Your task to perform on an android device: change keyboard looks Image 0: 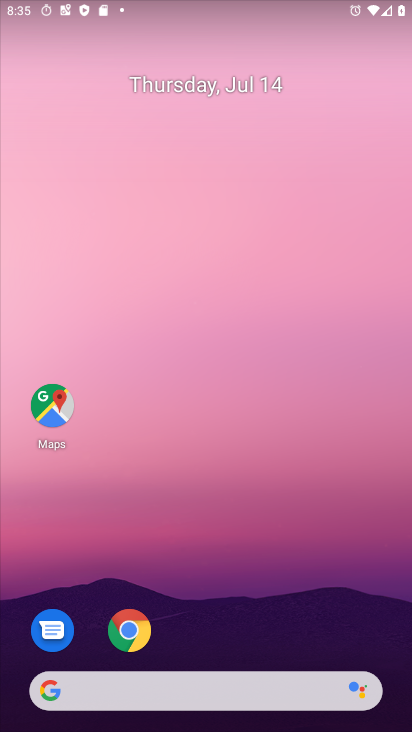
Step 0: drag from (240, 730) to (238, 136)
Your task to perform on an android device: change keyboard looks Image 1: 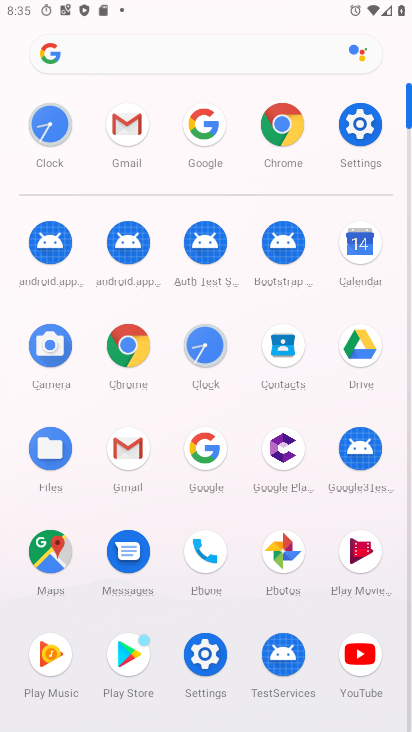
Step 1: click (370, 129)
Your task to perform on an android device: change keyboard looks Image 2: 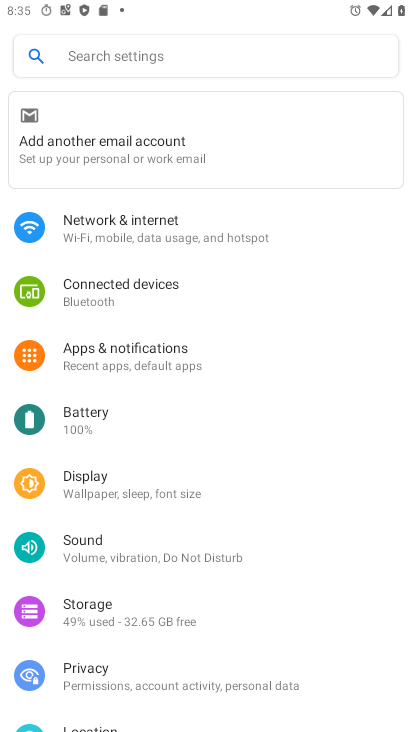
Step 2: drag from (173, 675) to (177, 349)
Your task to perform on an android device: change keyboard looks Image 3: 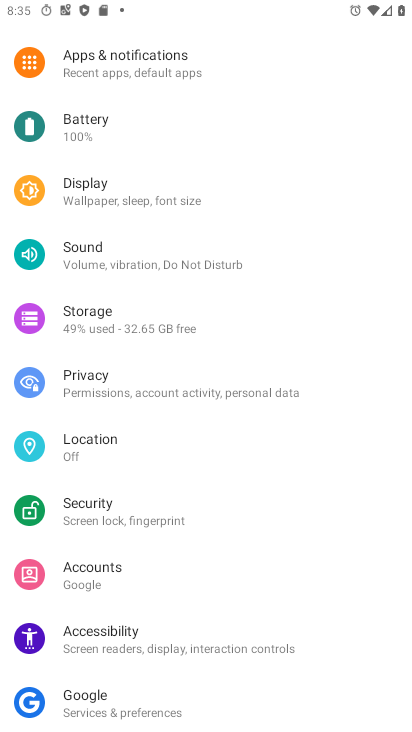
Step 3: drag from (132, 688) to (124, 367)
Your task to perform on an android device: change keyboard looks Image 4: 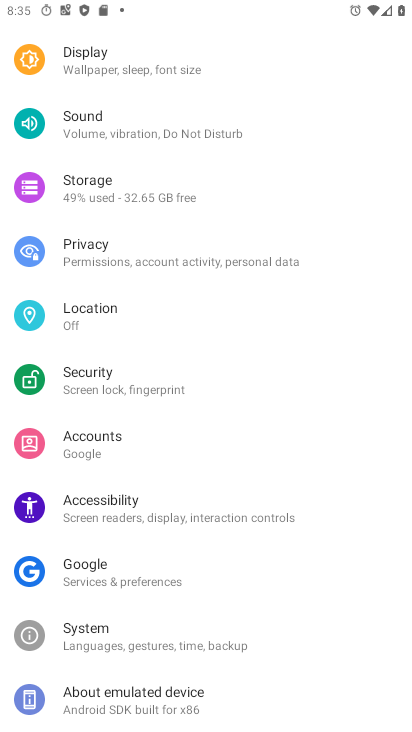
Step 4: click (95, 635)
Your task to perform on an android device: change keyboard looks Image 5: 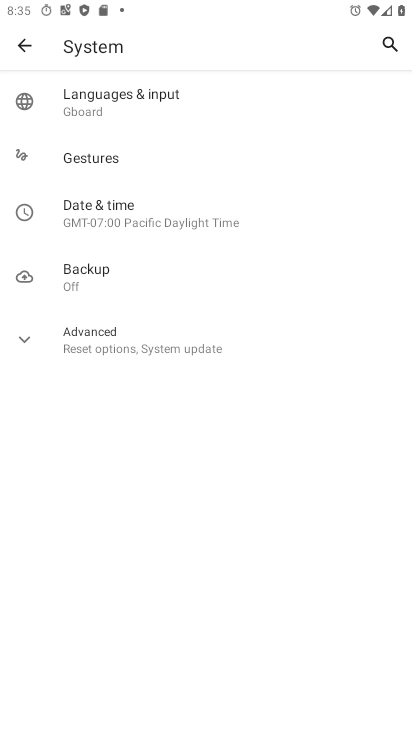
Step 5: click (88, 99)
Your task to perform on an android device: change keyboard looks Image 6: 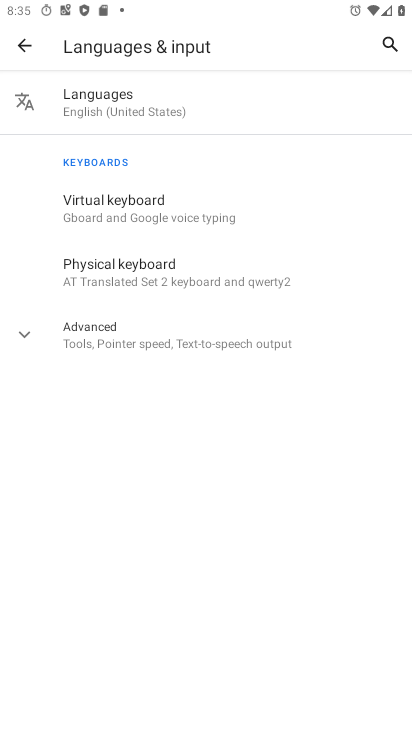
Step 6: click (131, 202)
Your task to perform on an android device: change keyboard looks Image 7: 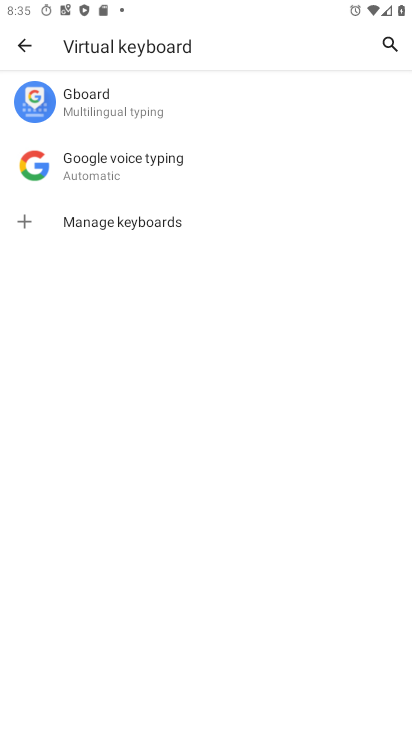
Step 7: click (110, 108)
Your task to perform on an android device: change keyboard looks Image 8: 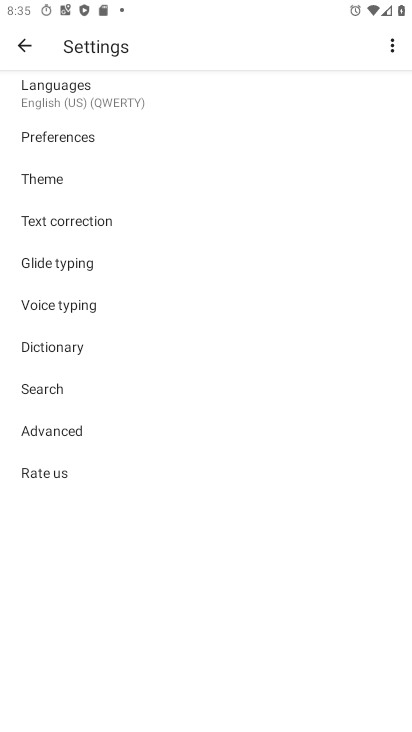
Step 8: click (46, 183)
Your task to perform on an android device: change keyboard looks Image 9: 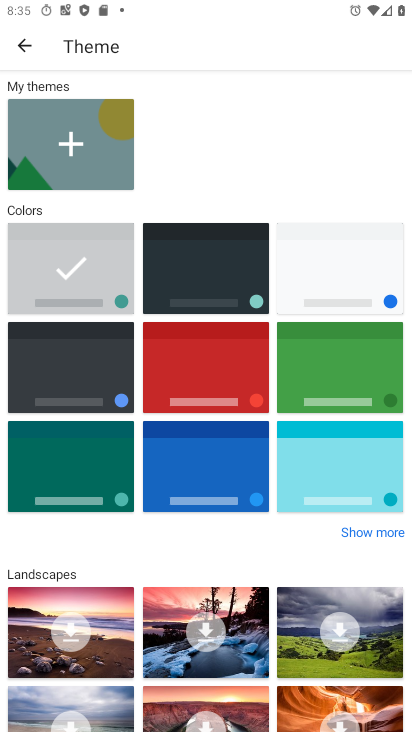
Step 9: click (152, 301)
Your task to perform on an android device: change keyboard looks Image 10: 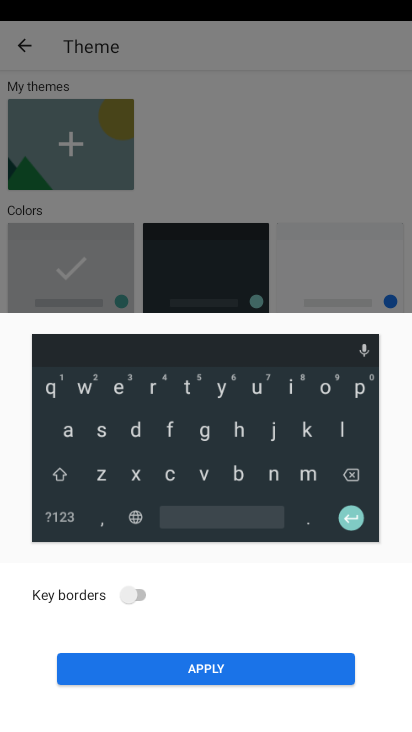
Step 10: click (133, 586)
Your task to perform on an android device: change keyboard looks Image 11: 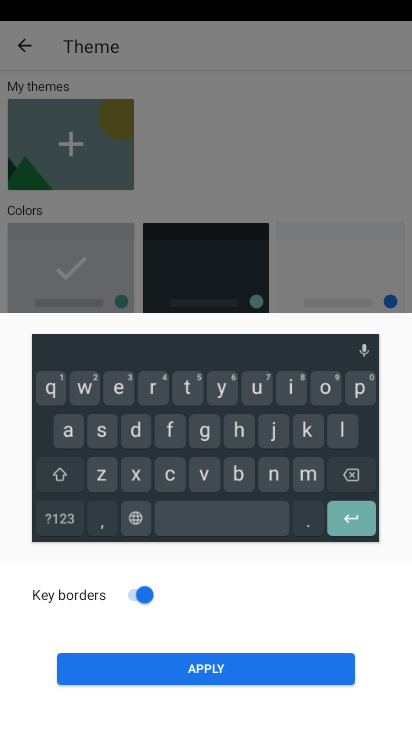
Step 11: click (155, 666)
Your task to perform on an android device: change keyboard looks Image 12: 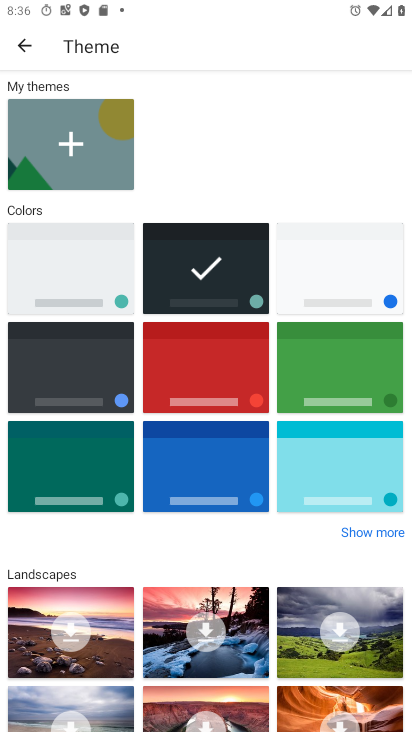
Step 12: task complete